Your task to perform on an android device: change keyboard looks Image 0: 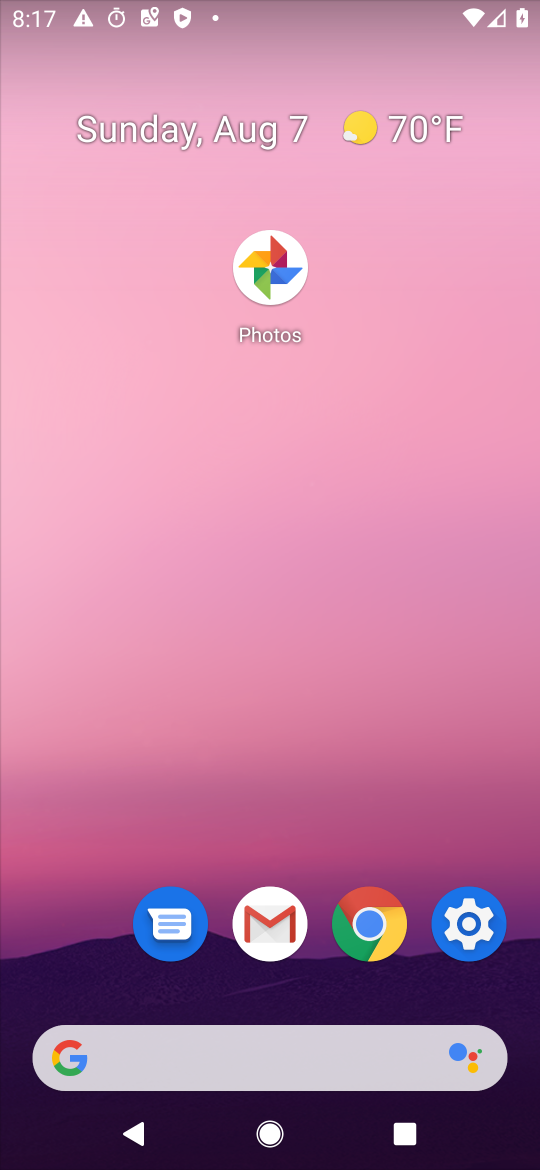
Step 0: drag from (382, 871) to (401, 313)
Your task to perform on an android device: change keyboard looks Image 1: 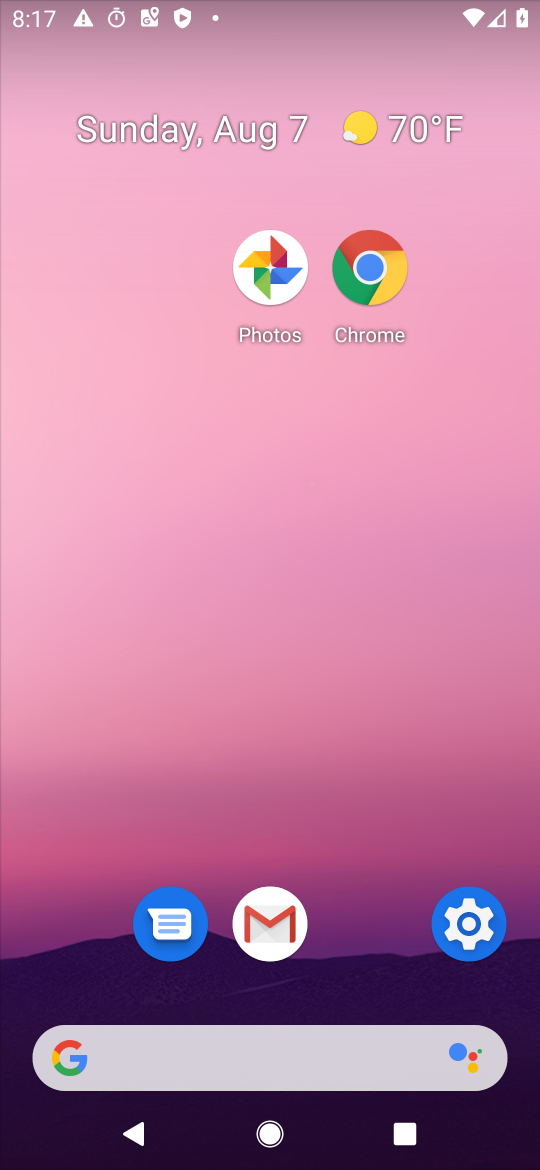
Step 1: drag from (297, 916) to (172, 78)
Your task to perform on an android device: change keyboard looks Image 2: 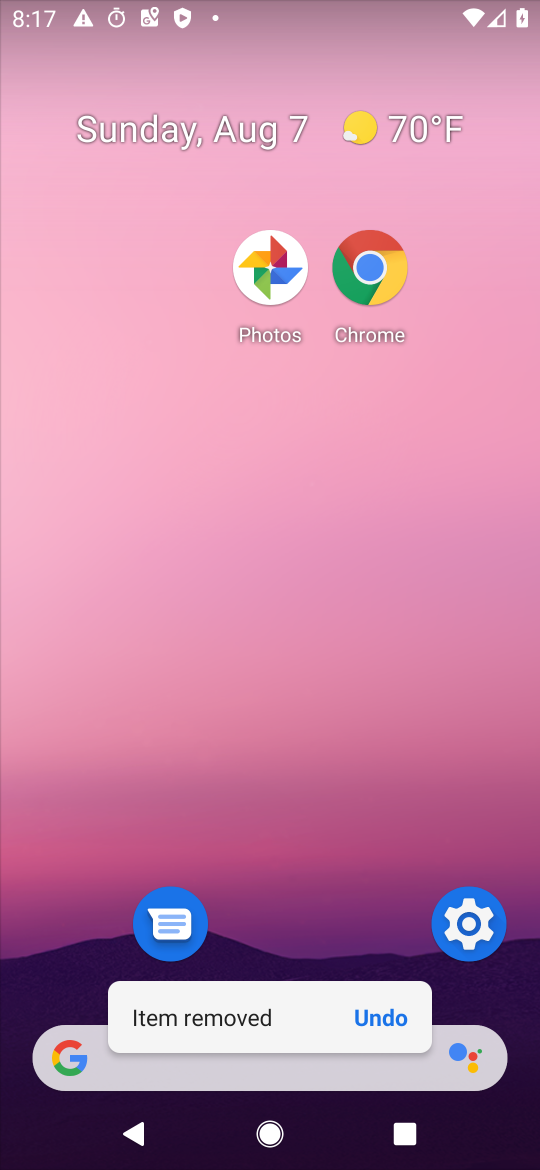
Step 2: click (386, 1007)
Your task to perform on an android device: change keyboard looks Image 3: 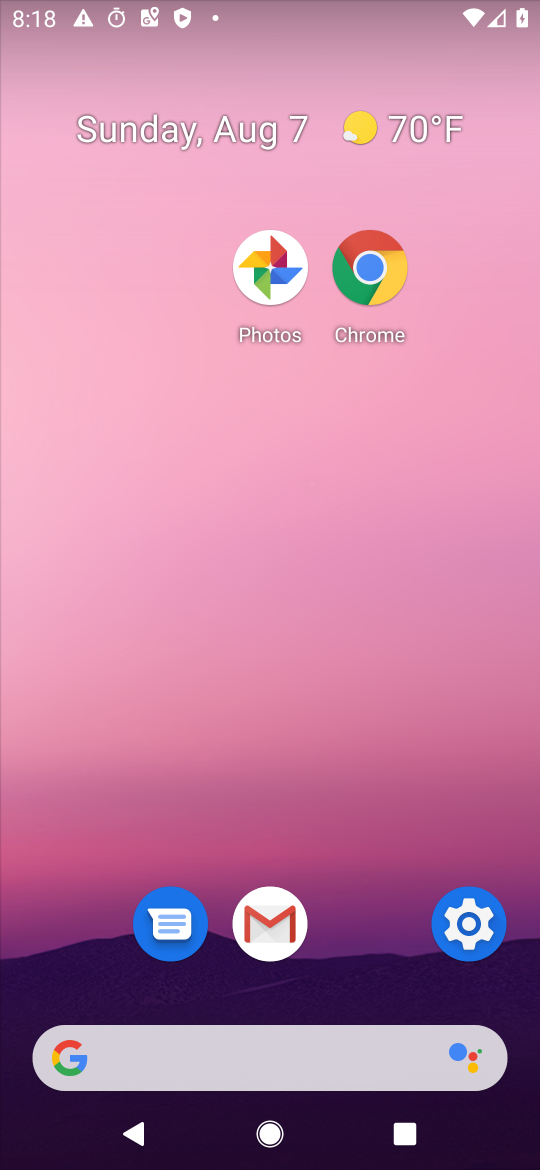
Step 3: drag from (389, 272) to (370, 900)
Your task to perform on an android device: change keyboard looks Image 4: 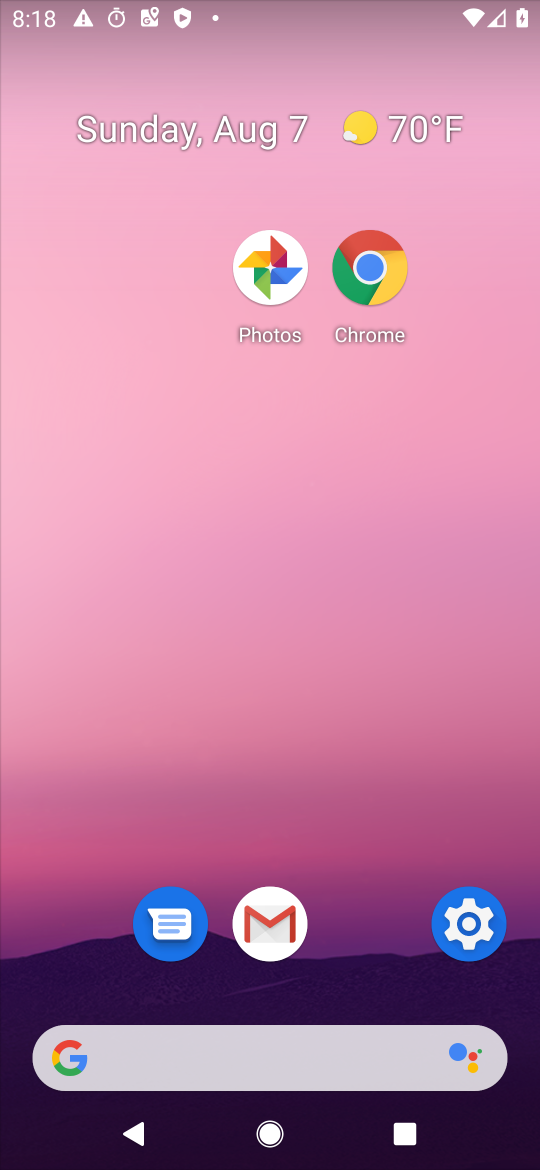
Step 4: drag from (344, 263) to (359, 965)
Your task to perform on an android device: change keyboard looks Image 5: 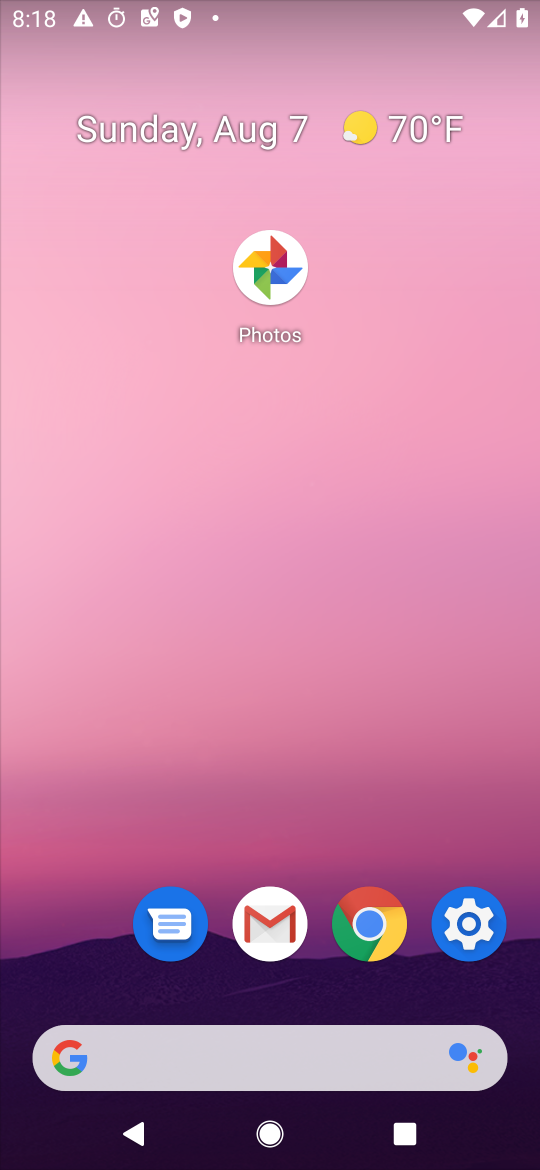
Step 5: click (465, 906)
Your task to perform on an android device: change keyboard looks Image 6: 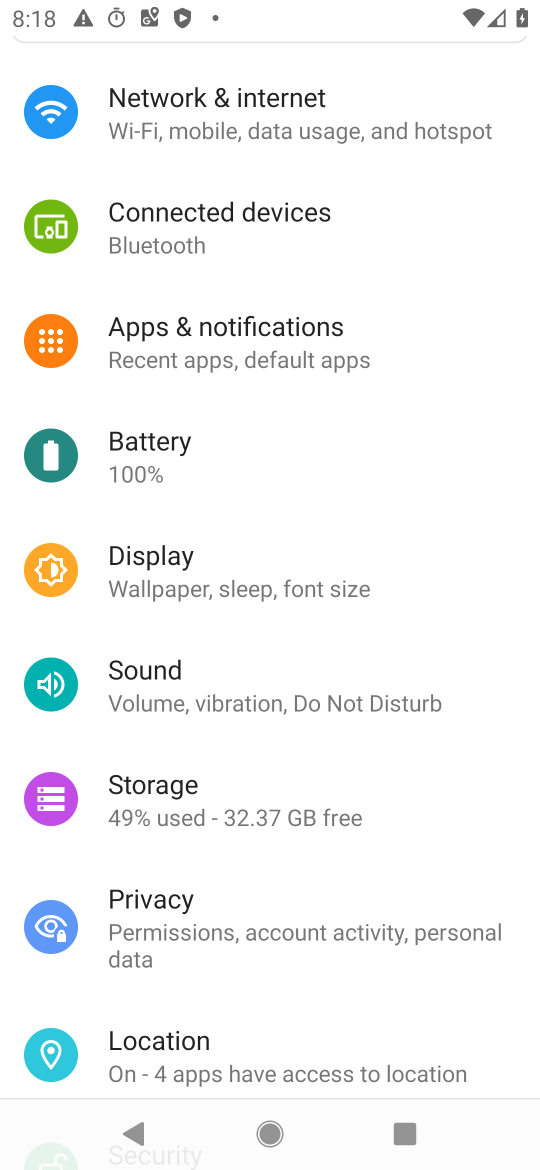
Step 6: drag from (166, 252) to (202, 538)
Your task to perform on an android device: change keyboard looks Image 7: 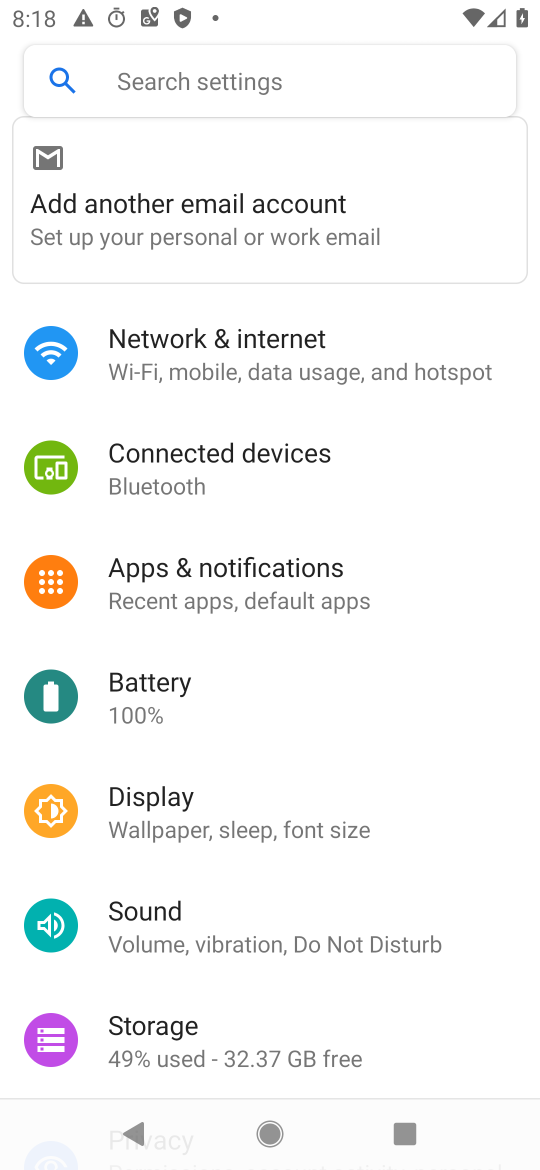
Step 7: click (212, 105)
Your task to perform on an android device: change keyboard looks Image 8: 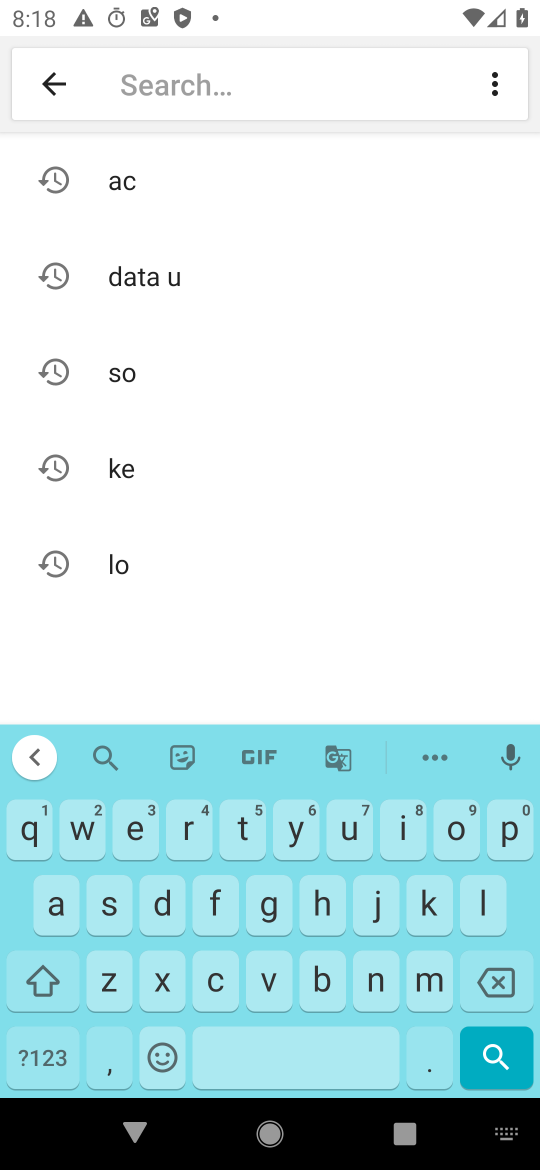
Step 8: click (428, 904)
Your task to perform on an android device: change keyboard looks Image 9: 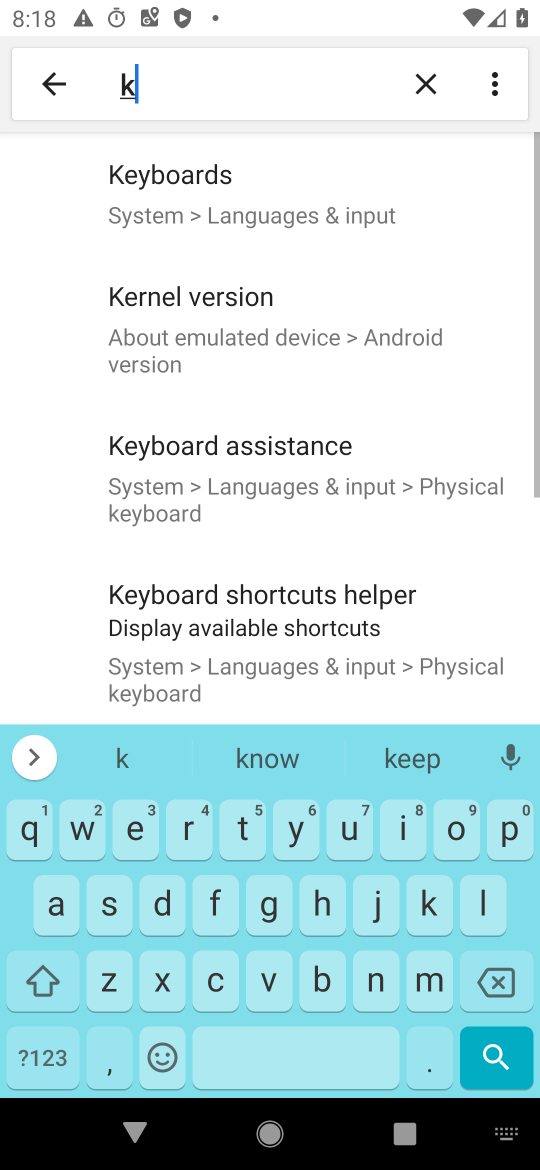
Step 9: click (137, 830)
Your task to perform on an android device: change keyboard looks Image 10: 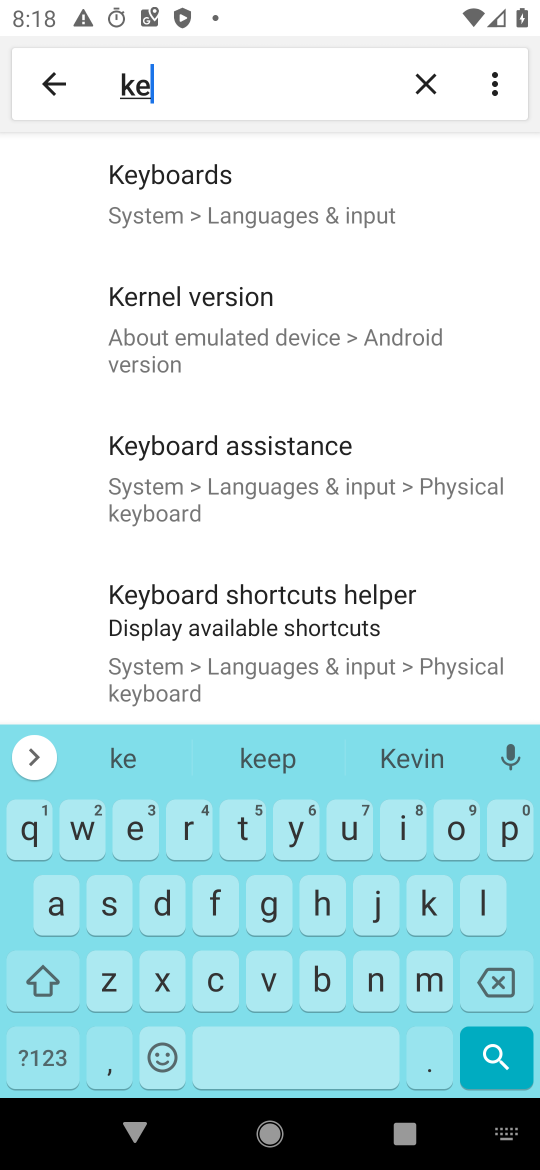
Step 10: click (238, 200)
Your task to perform on an android device: change keyboard looks Image 11: 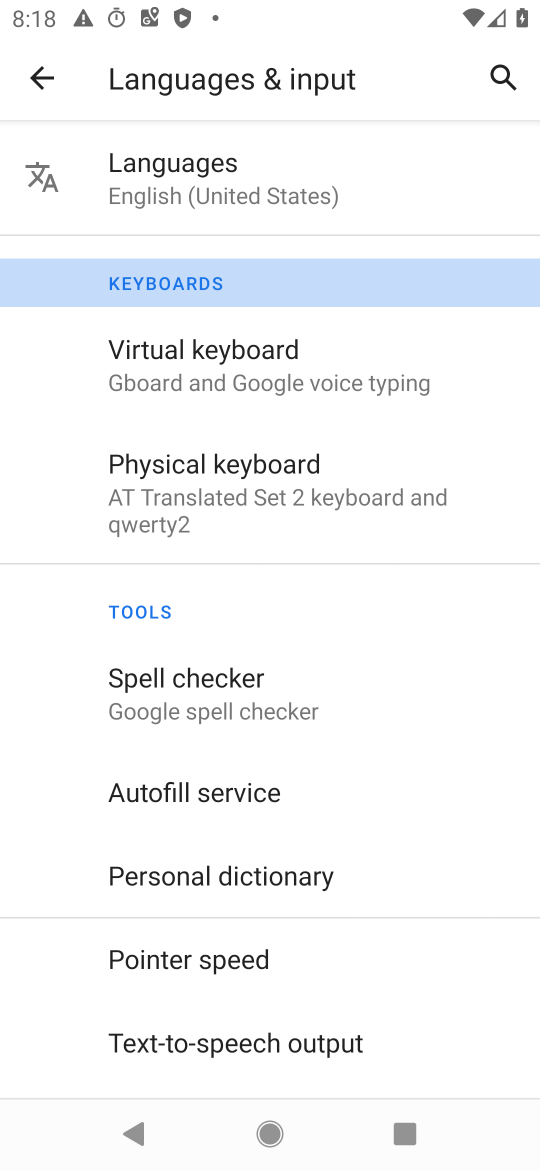
Step 11: click (215, 357)
Your task to perform on an android device: change keyboard looks Image 12: 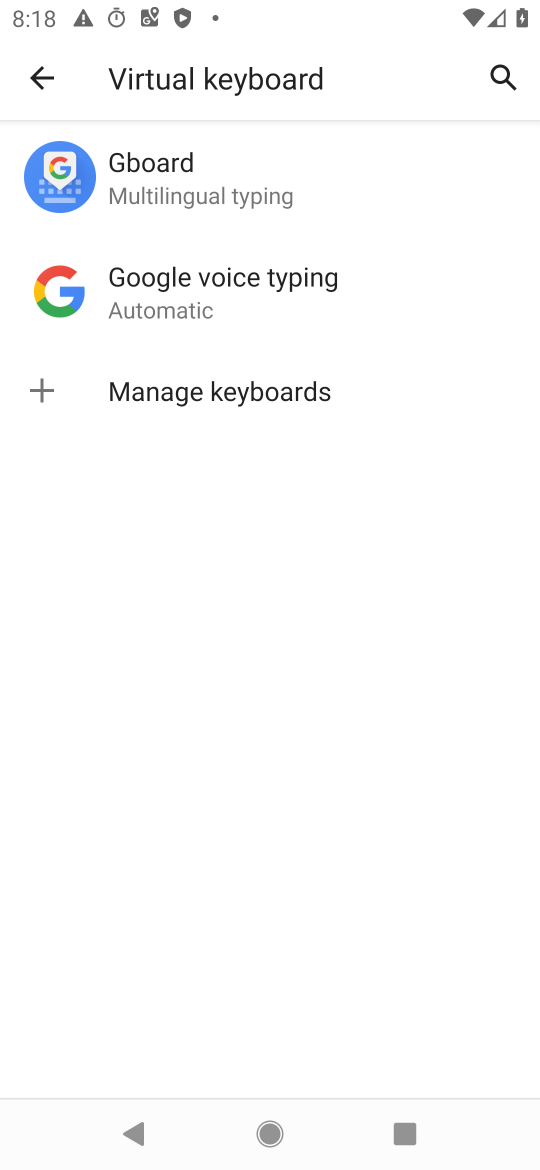
Step 12: click (183, 177)
Your task to perform on an android device: change keyboard looks Image 13: 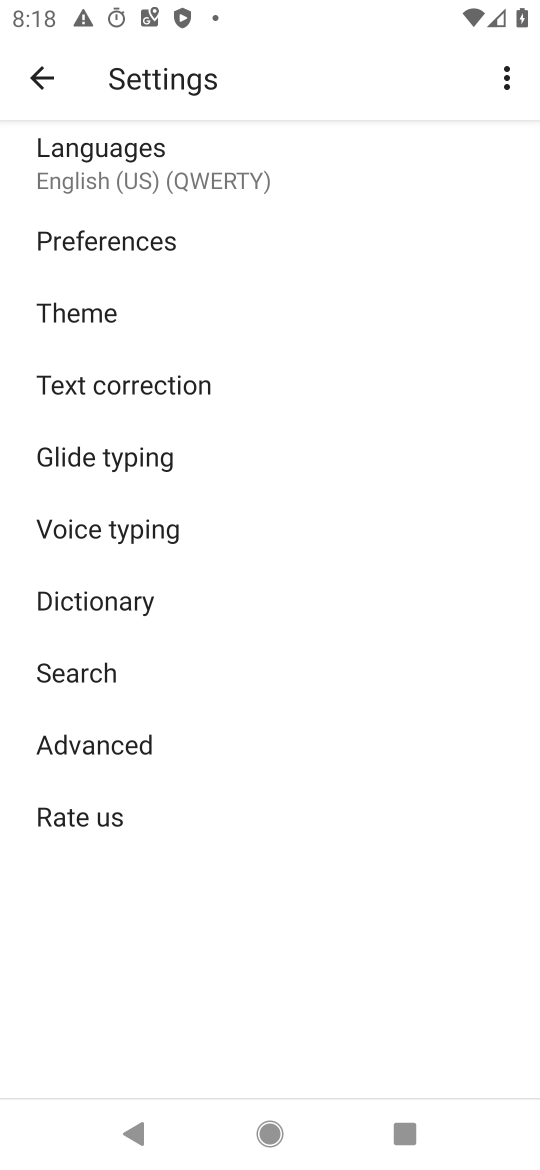
Step 13: click (99, 341)
Your task to perform on an android device: change keyboard looks Image 14: 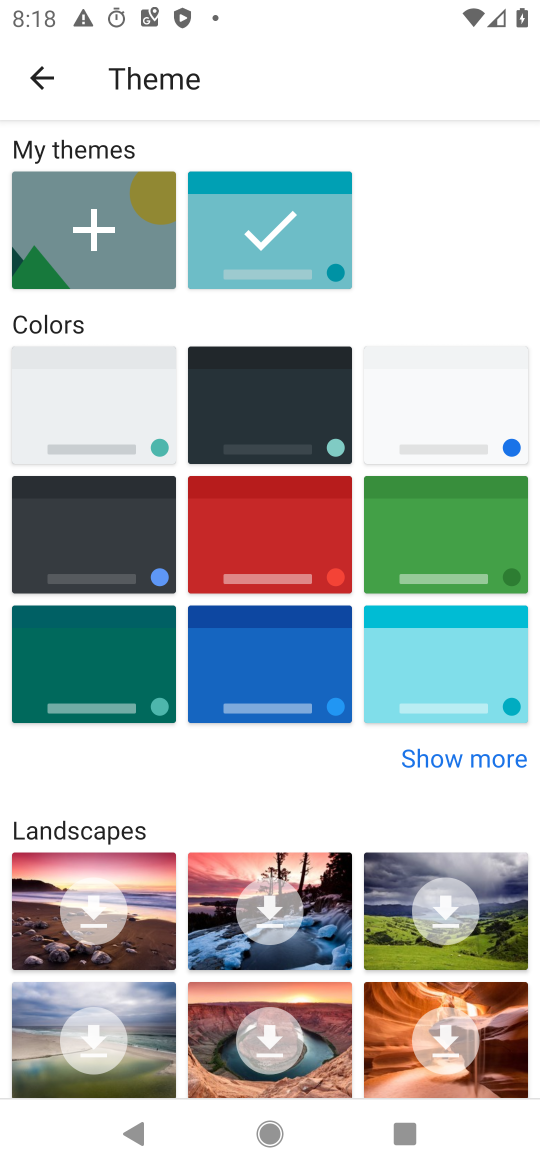
Step 14: click (453, 574)
Your task to perform on an android device: change keyboard looks Image 15: 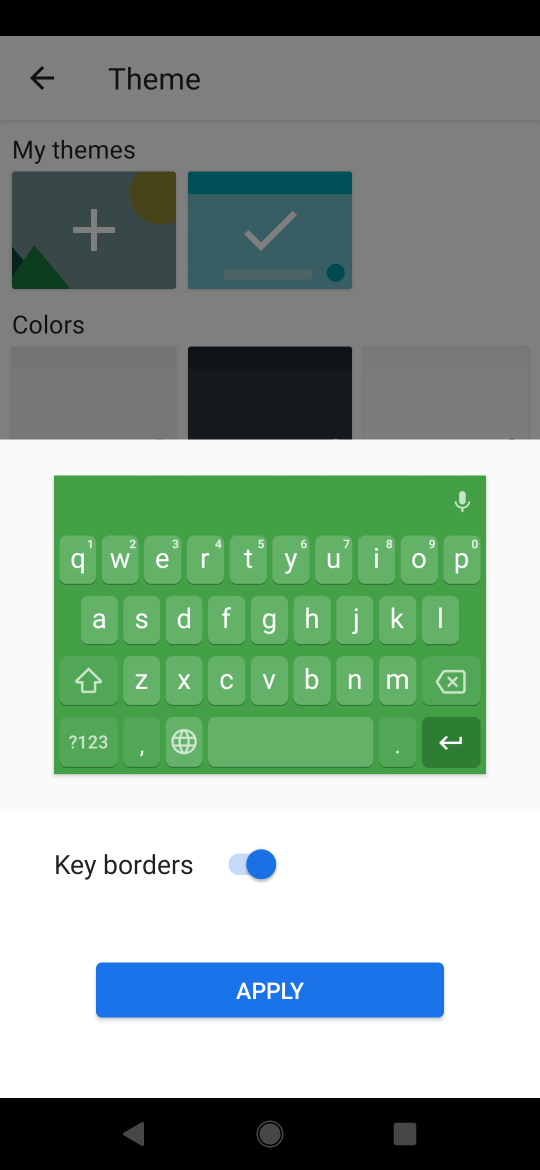
Step 15: click (267, 968)
Your task to perform on an android device: change keyboard looks Image 16: 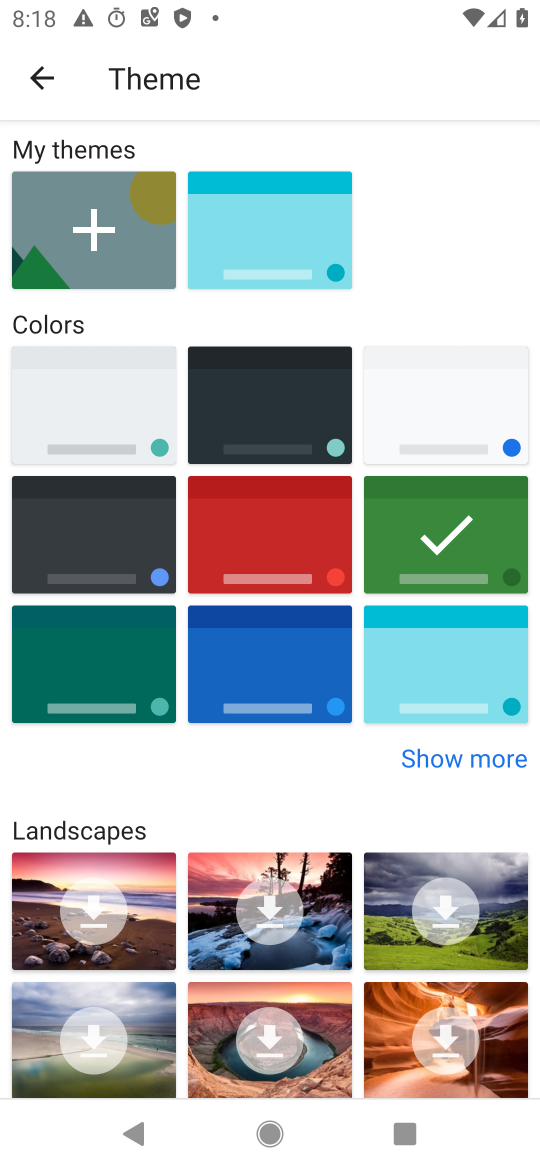
Step 16: task complete